Your task to perform on an android device: Do I have any events tomorrow? Image 0: 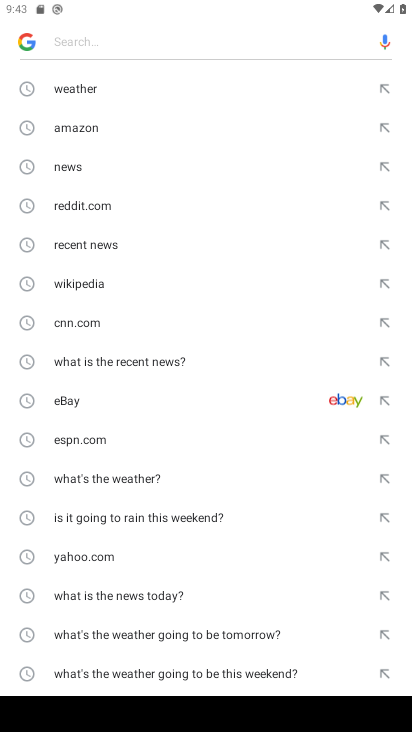
Step 0: press back button
Your task to perform on an android device: Do I have any events tomorrow? Image 1: 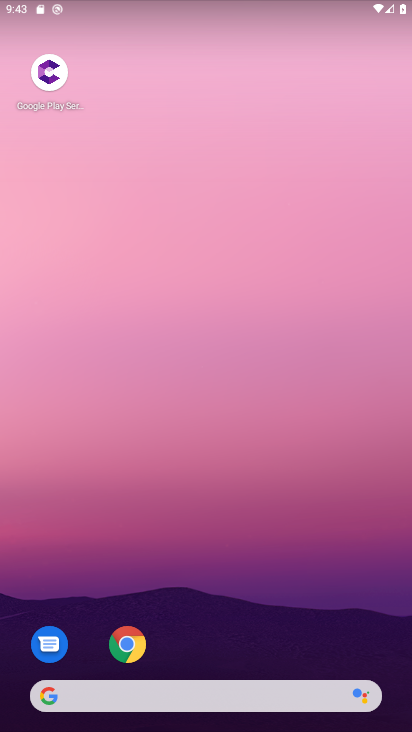
Step 1: drag from (254, 608) to (190, 127)
Your task to perform on an android device: Do I have any events tomorrow? Image 2: 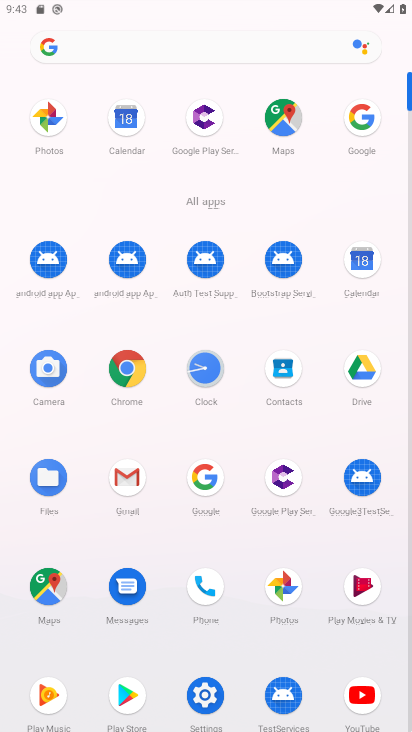
Step 2: click (363, 262)
Your task to perform on an android device: Do I have any events tomorrow? Image 3: 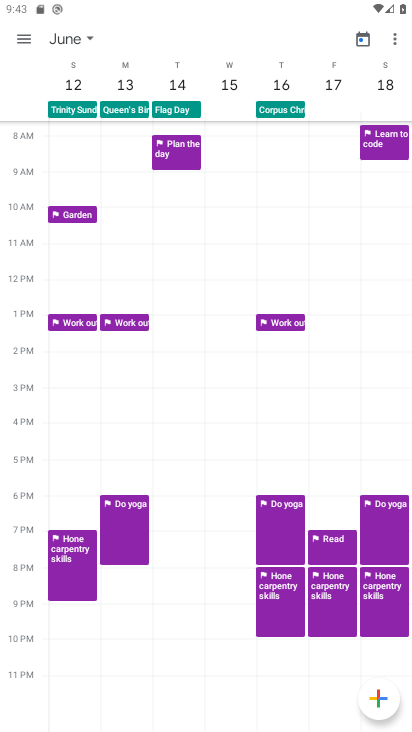
Step 3: click (364, 39)
Your task to perform on an android device: Do I have any events tomorrow? Image 4: 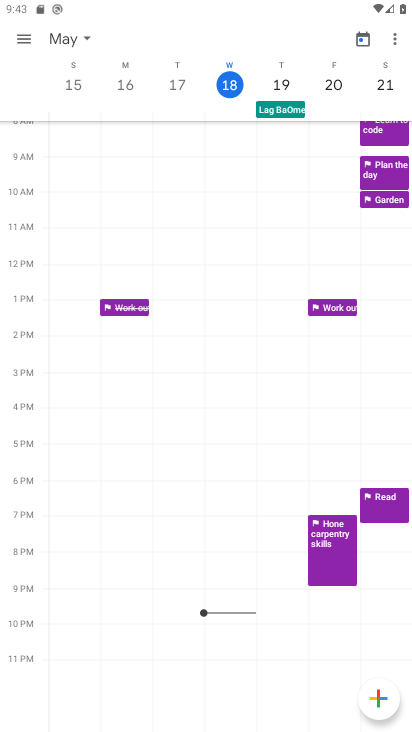
Step 4: click (90, 34)
Your task to perform on an android device: Do I have any events tomorrow? Image 5: 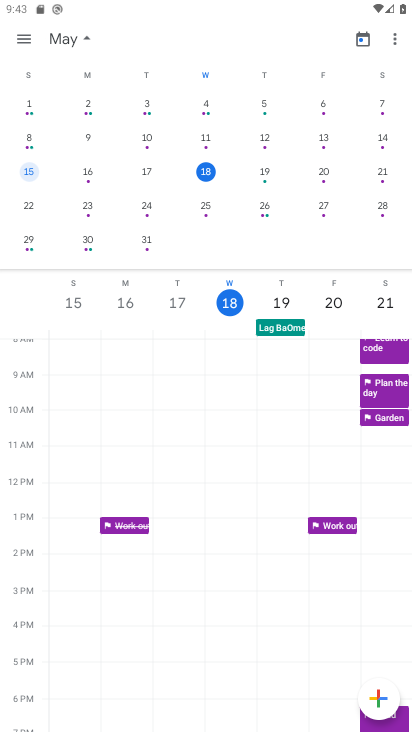
Step 5: click (270, 175)
Your task to perform on an android device: Do I have any events tomorrow? Image 6: 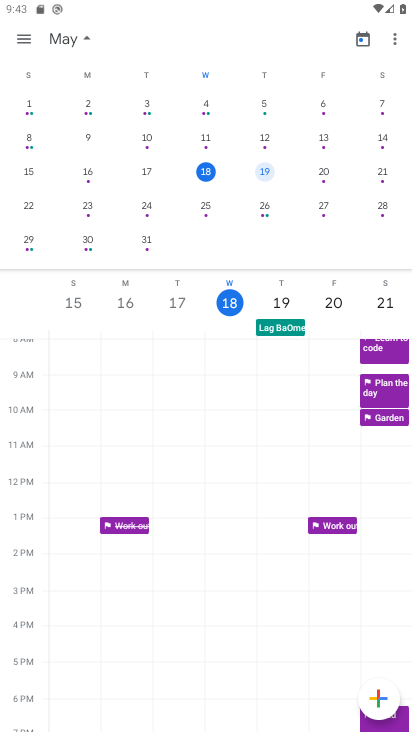
Step 6: click (26, 37)
Your task to perform on an android device: Do I have any events tomorrow? Image 7: 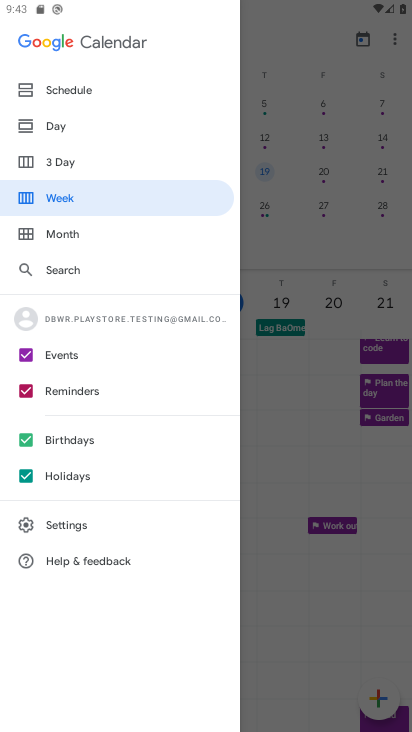
Step 7: click (98, 90)
Your task to perform on an android device: Do I have any events tomorrow? Image 8: 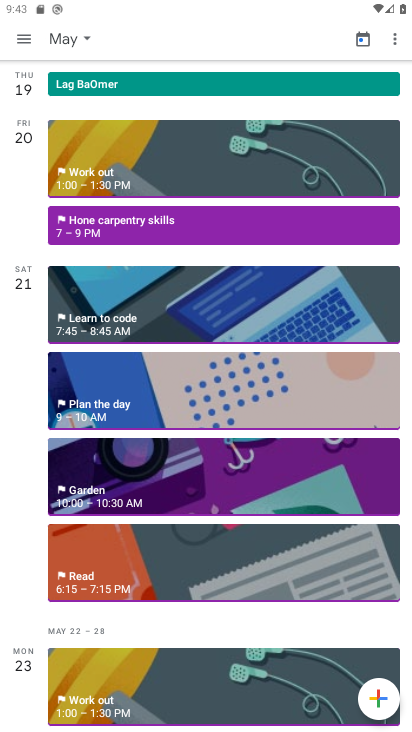
Step 8: click (229, 91)
Your task to perform on an android device: Do I have any events tomorrow? Image 9: 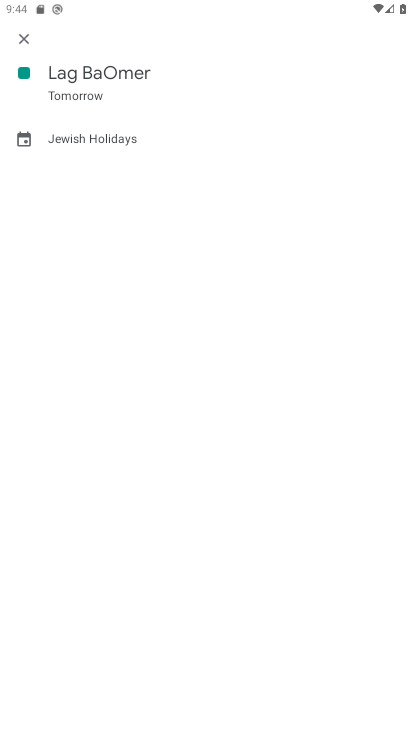
Step 9: task complete